Your task to perform on an android device: all mails in gmail Image 0: 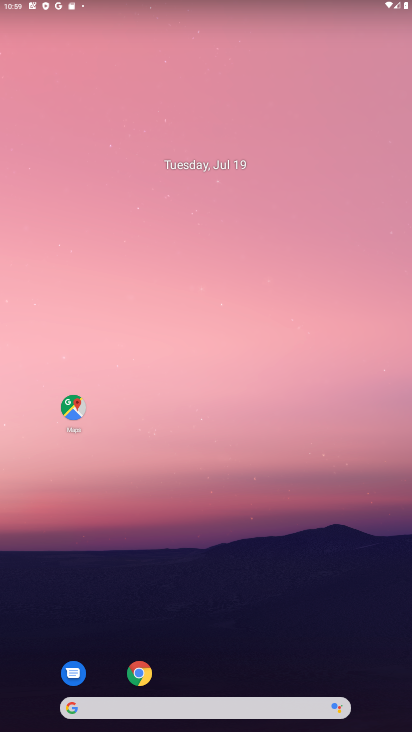
Step 0: drag from (392, 680) to (333, 126)
Your task to perform on an android device: all mails in gmail Image 1: 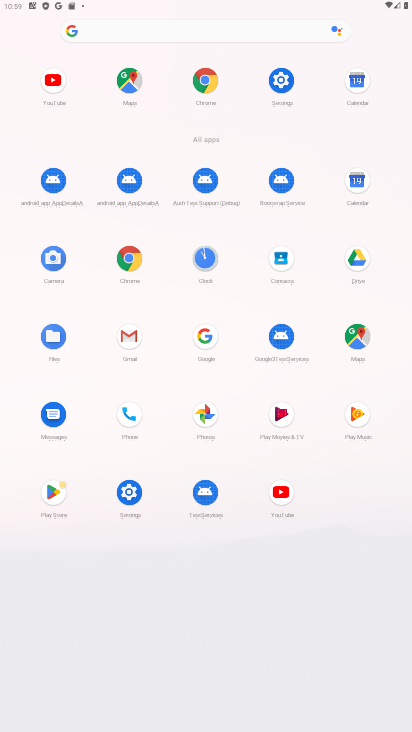
Step 1: click (128, 337)
Your task to perform on an android device: all mails in gmail Image 2: 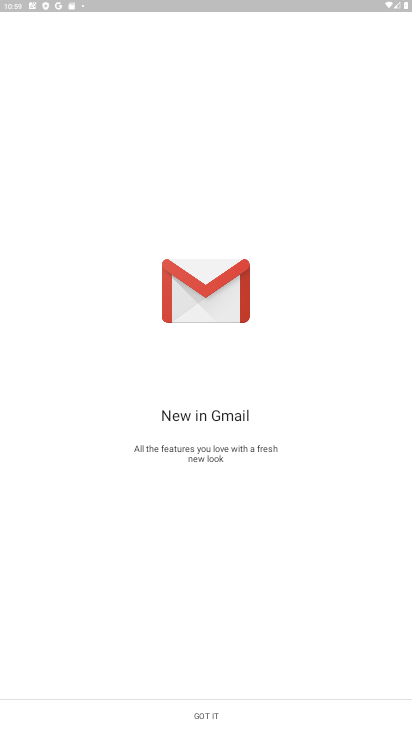
Step 2: click (198, 714)
Your task to perform on an android device: all mails in gmail Image 3: 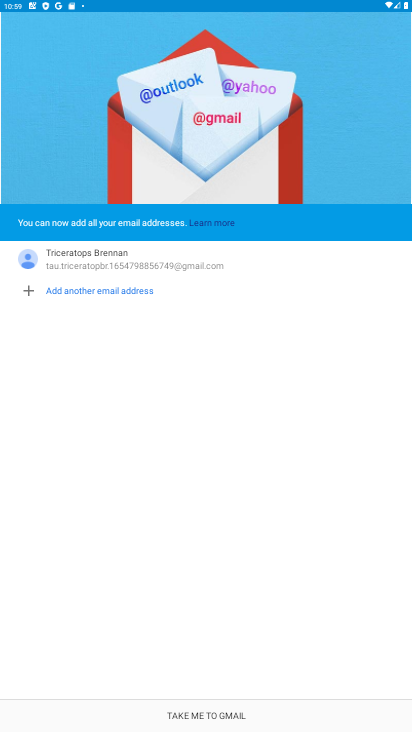
Step 3: click (212, 720)
Your task to perform on an android device: all mails in gmail Image 4: 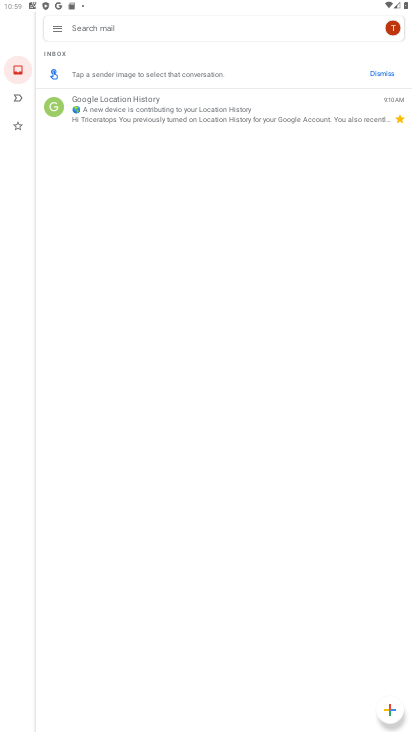
Step 4: click (57, 27)
Your task to perform on an android device: all mails in gmail Image 5: 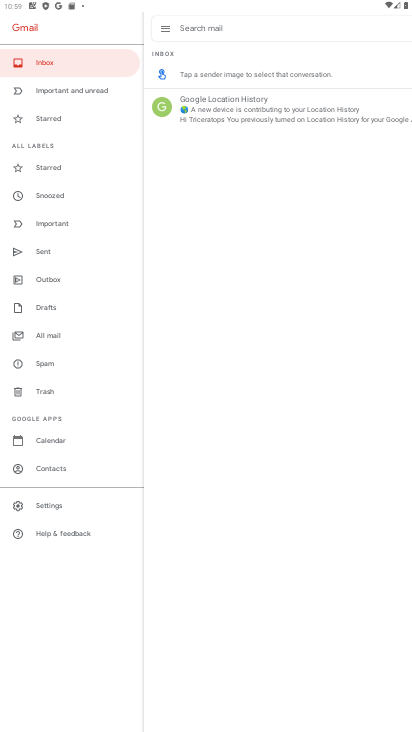
Step 5: click (46, 332)
Your task to perform on an android device: all mails in gmail Image 6: 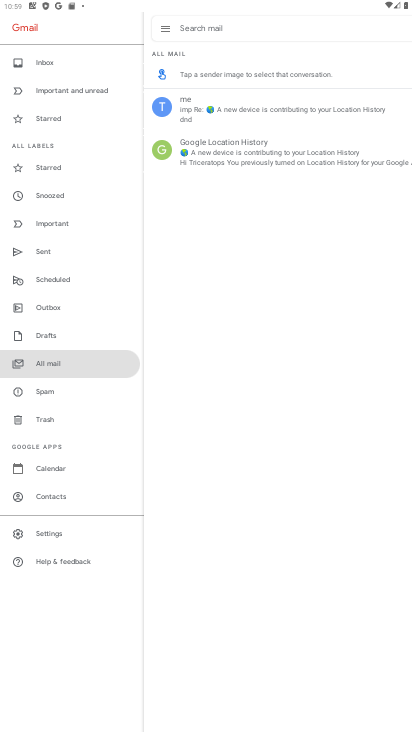
Step 6: task complete